Your task to perform on an android device: Go to ESPN.com Image 0: 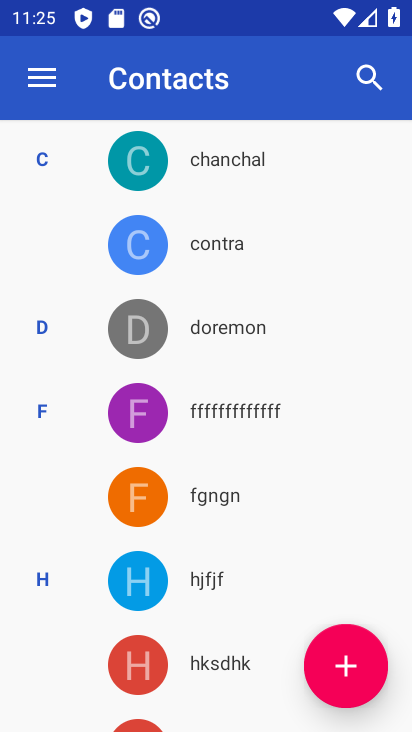
Step 0: press home button
Your task to perform on an android device: Go to ESPN.com Image 1: 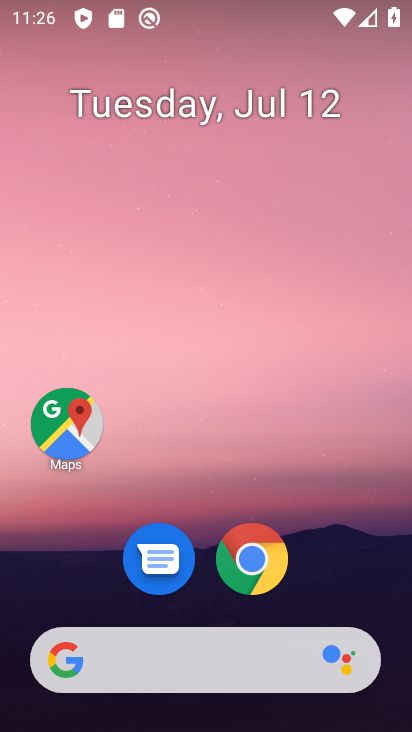
Step 1: drag from (175, 593) to (241, 40)
Your task to perform on an android device: Go to ESPN.com Image 2: 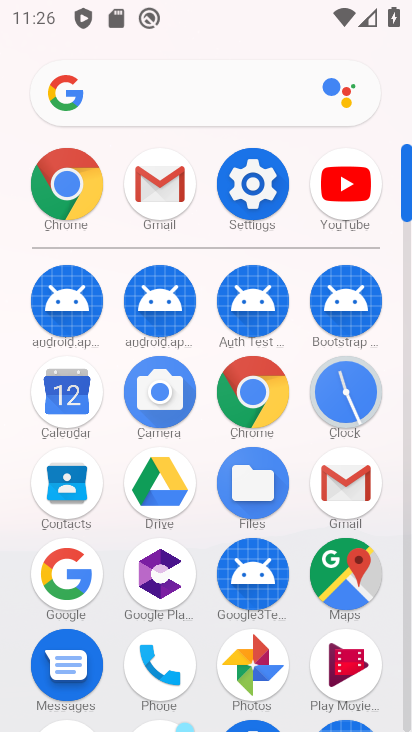
Step 2: click (65, 197)
Your task to perform on an android device: Go to ESPN.com Image 3: 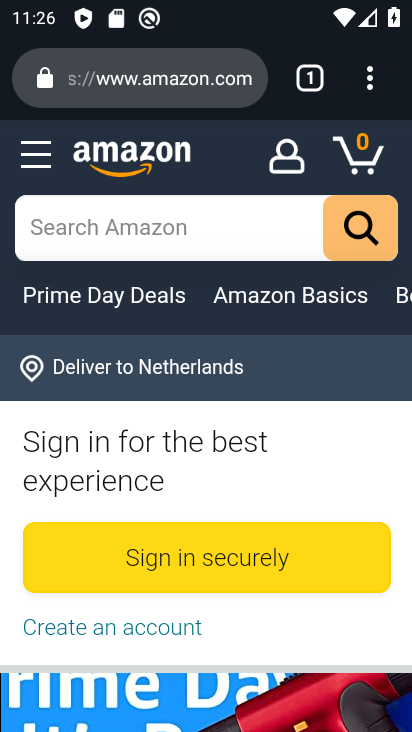
Step 3: click (132, 85)
Your task to perform on an android device: Go to ESPN.com Image 4: 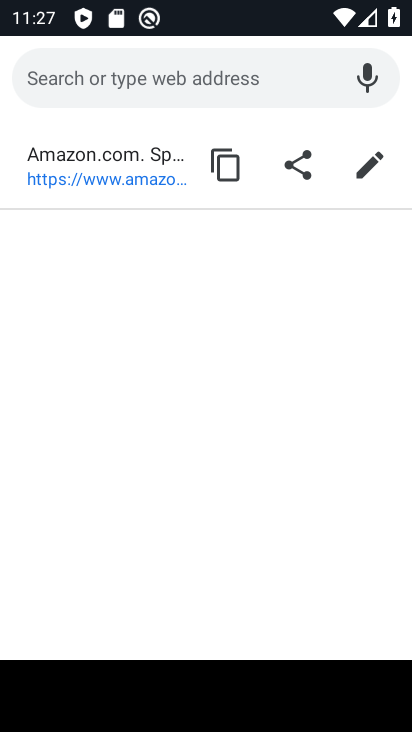
Step 4: type "espn"
Your task to perform on an android device: Go to ESPN.com Image 5: 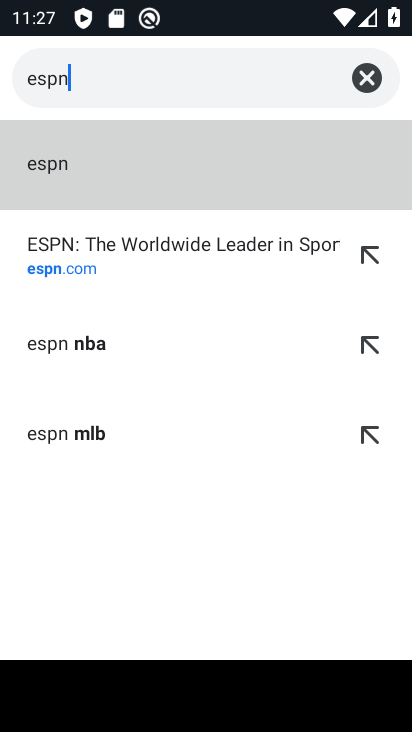
Step 5: click (195, 278)
Your task to perform on an android device: Go to ESPN.com Image 6: 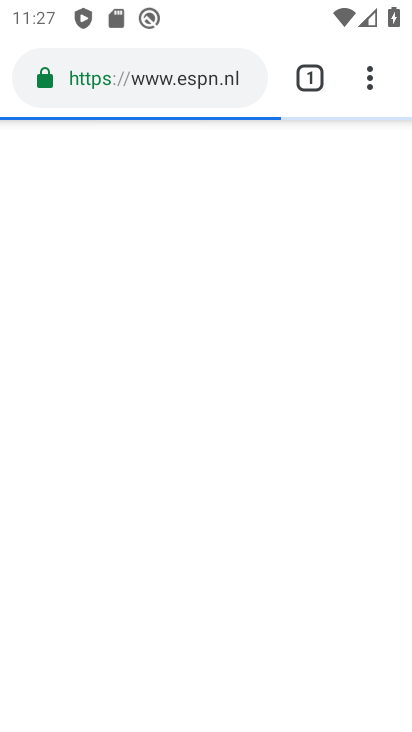
Step 6: task complete